Your task to perform on an android device: Open my contact list Image 0: 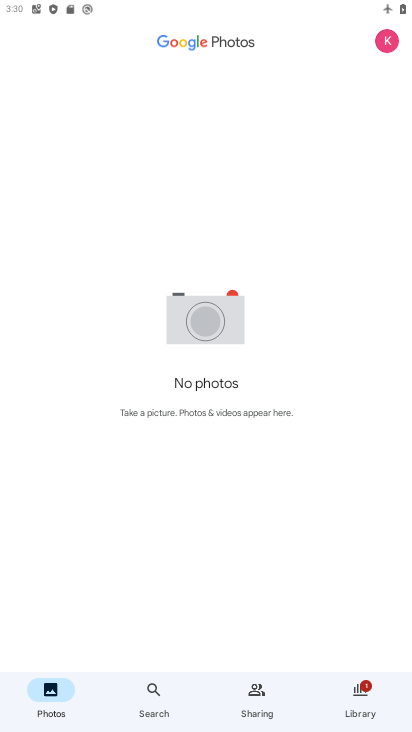
Step 0: press home button
Your task to perform on an android device: Open my contact list Image 1: 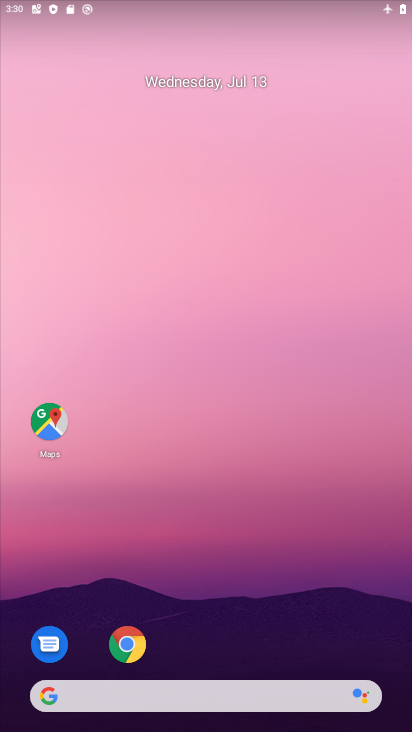
Step 1: drag from (337, 564) to (256, 78)
Your task to perform on an android device: Open my contact list Image 2: 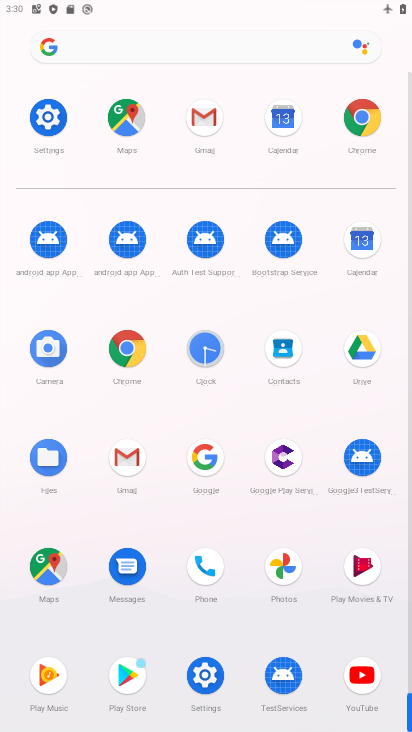
Step 2: click (296, 351)
Your task to perform on an android device: Open my contact list Image 3: 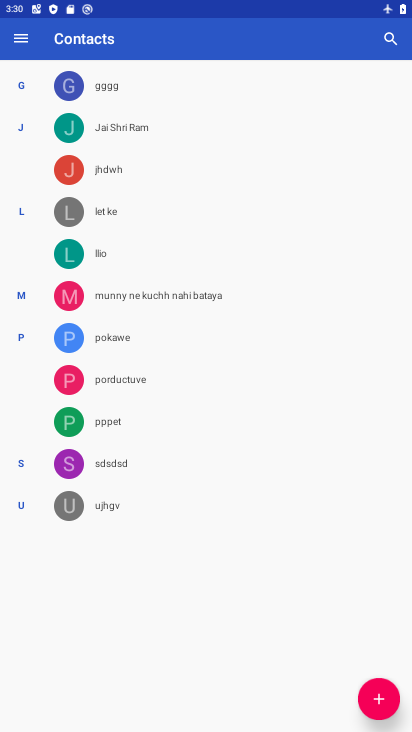
Step 3: task complete